Your task to perform on an android device: Show me productivity apps on the Play Store Image 0: 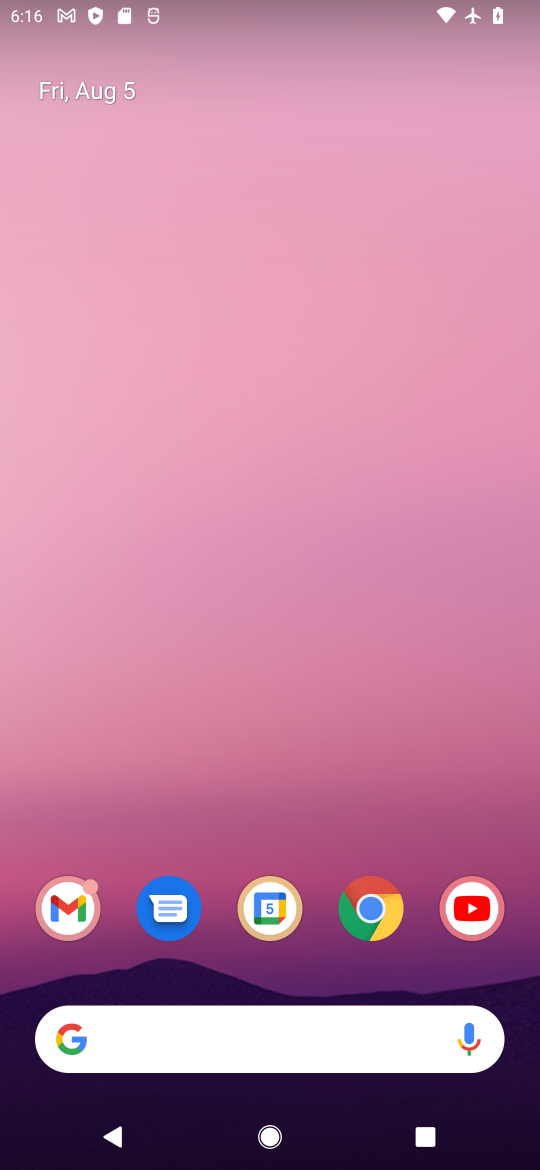
Step 0: drag from (232, 959) to (232, 271)
Your task to perform on an android device: Show me productivity apps on the Play Store Image 1: 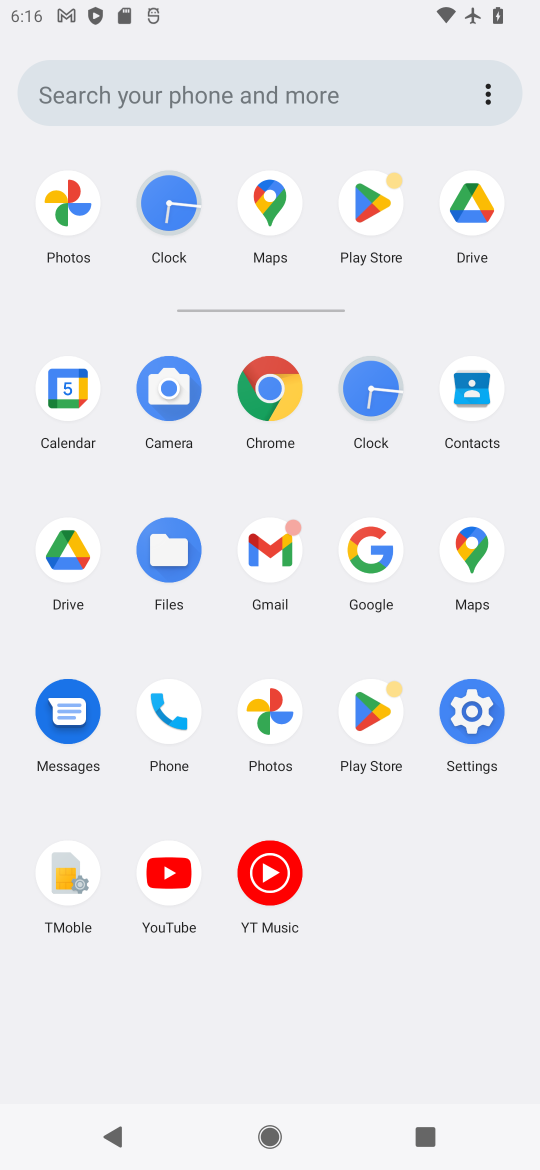
Step 1: drag from (242, 965) to (279, 360)
Your task to perform on an android device: Show me productivity apps on the Play Store Image 2: 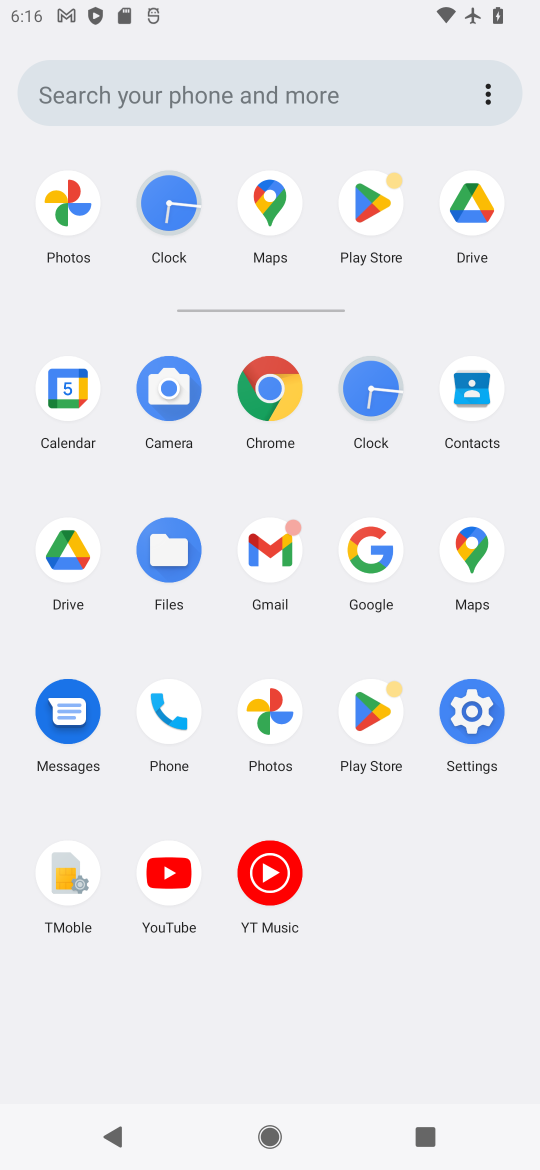
Step 2: click (383, 210)
Your task to perform on an android device: Show me productivity apps on the Play Store Image 3: 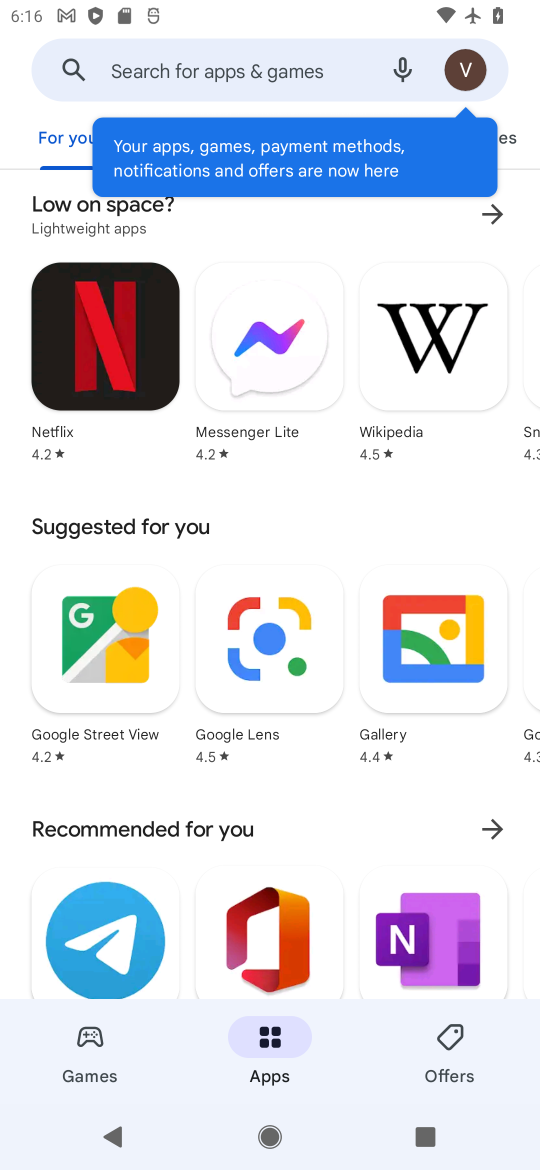
Step 3: click (289, 1042)
Your task to perform on an android device: Show me productivity apps on the Play Store Image 4: 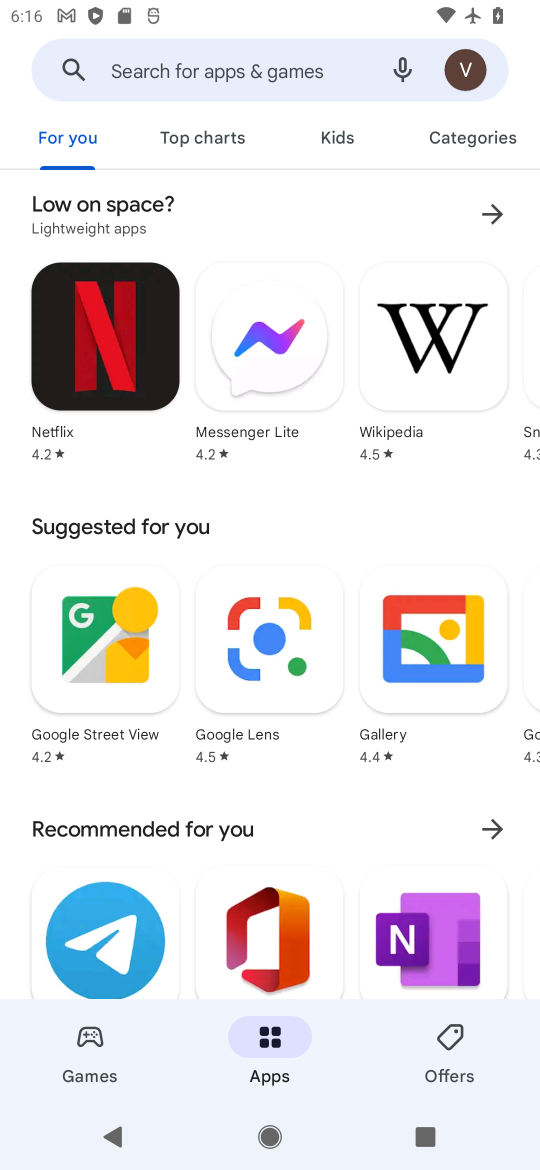
Step 4: click (468, 138)
Your task to perform on an android device: Show me productivity apps on the Play Store Image 5: 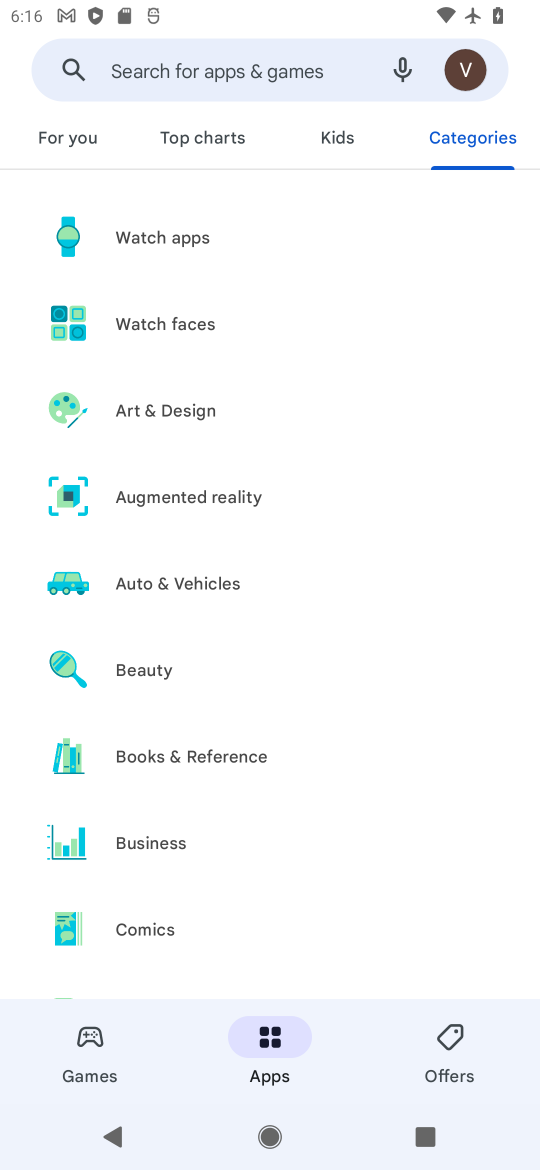
Step 5: drag from (165, 833) to (211, 341)
Your task to perform on an android device: Show me productivity apps on the Play Store Image 6: 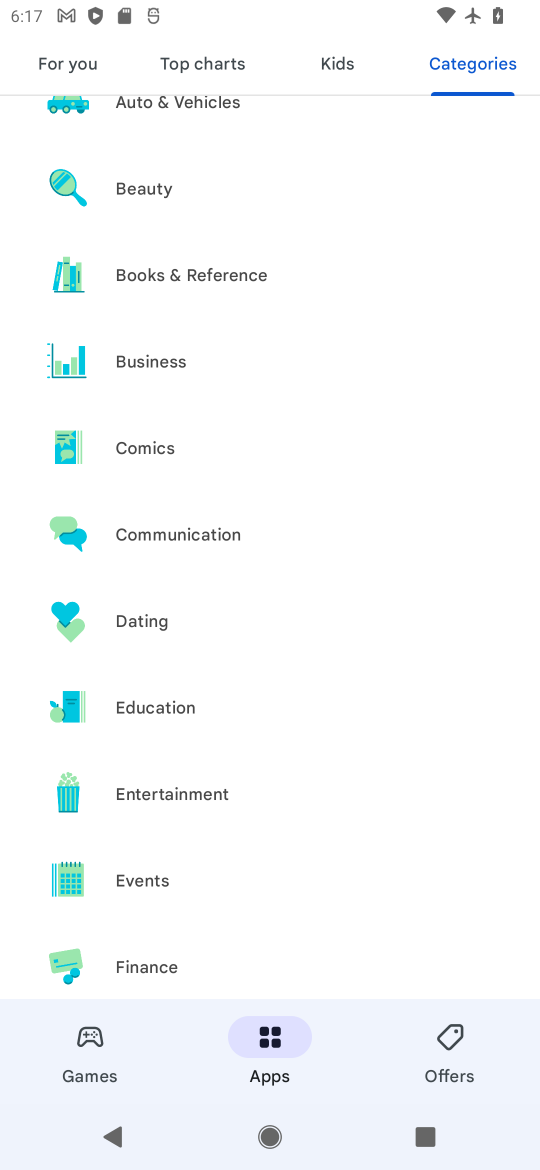
Step 6: drag from (198, 755) to (185, 268)
Your task to perform on an android device: Show me productivity apps on the Play Store Image 7: 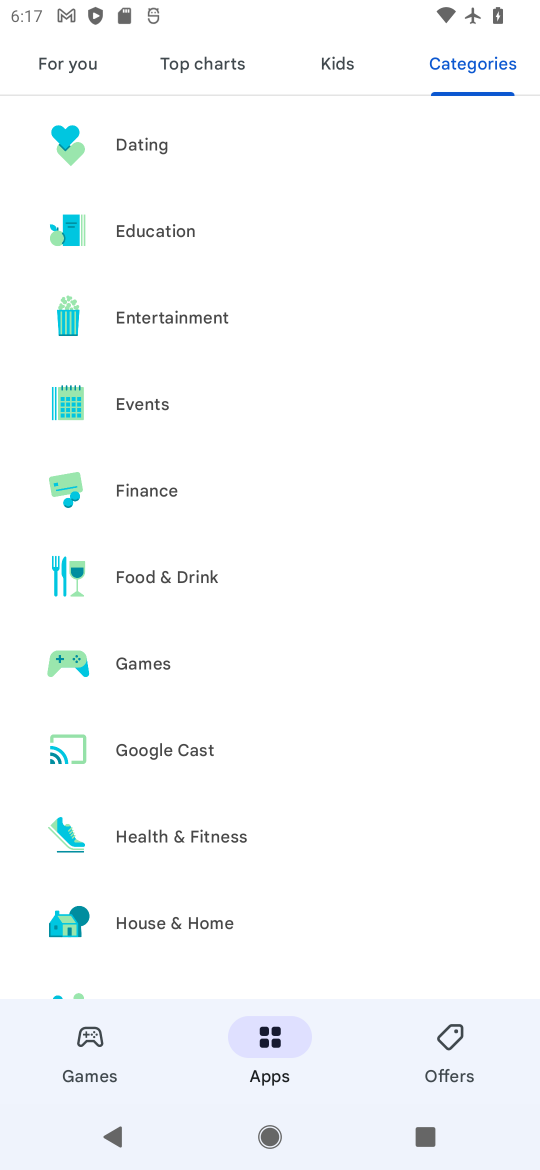
Step 7: drag from (207, 805) to (210, 421)
Your task to perform on an android device: Show me productivity apps on the Play Store Image 8: 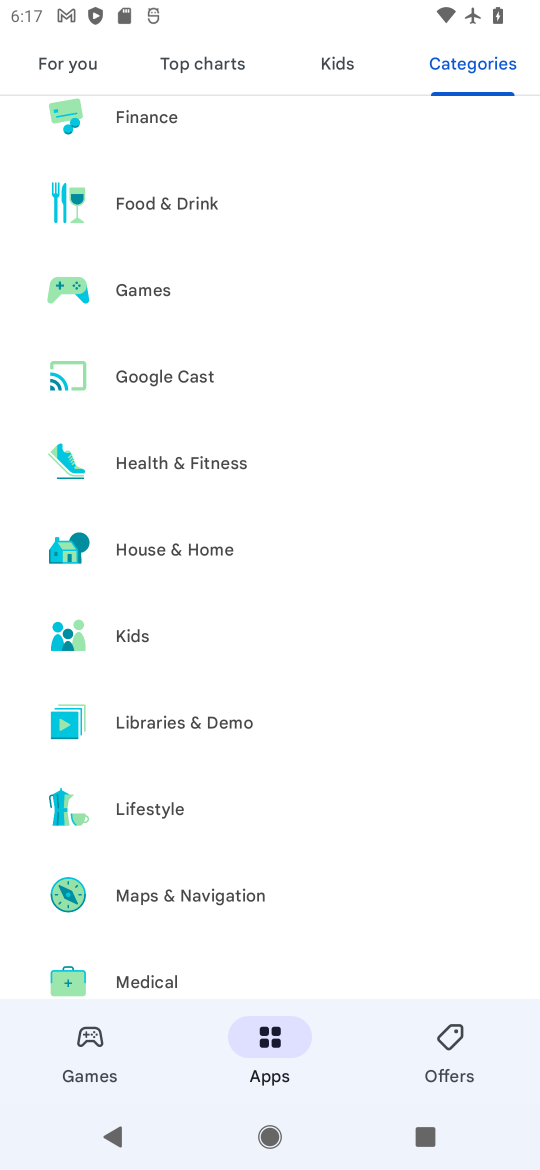
Step 8: drag from (222, 775) to (230, 510)
Your task to perform on an android device: Show me productivity apps on the Play Store Image 9: 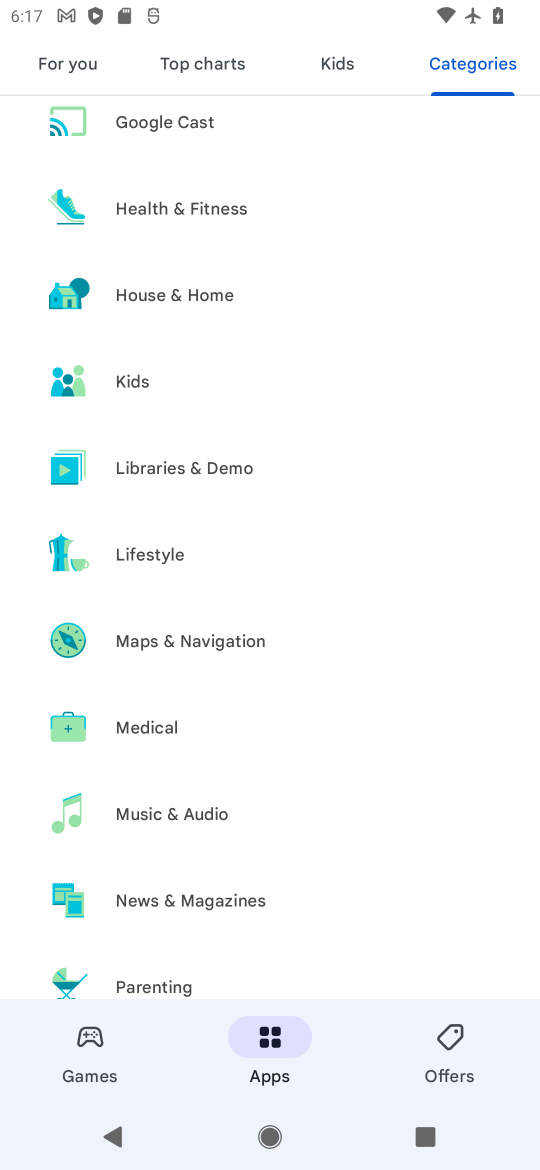
Step 9: drag from (193, 814) to (225, 416)
Your task to perform on an android device: Show me productivity apps on the Play Store Image 10: 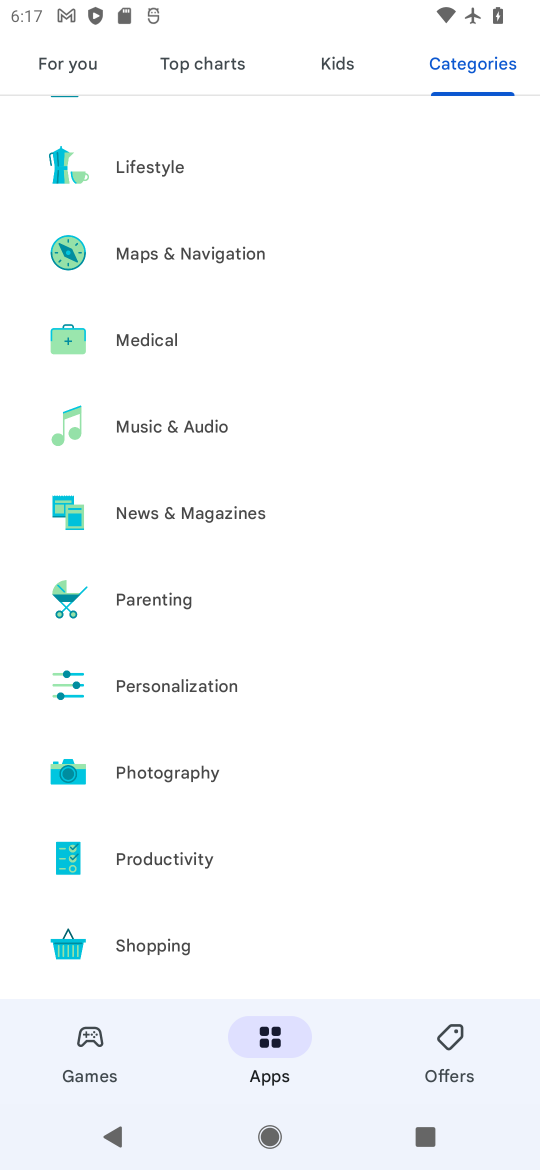
Step 10: click (177, 864)
Your task to perform on an android device: Show me productivity apps on the Play Store Image 11: 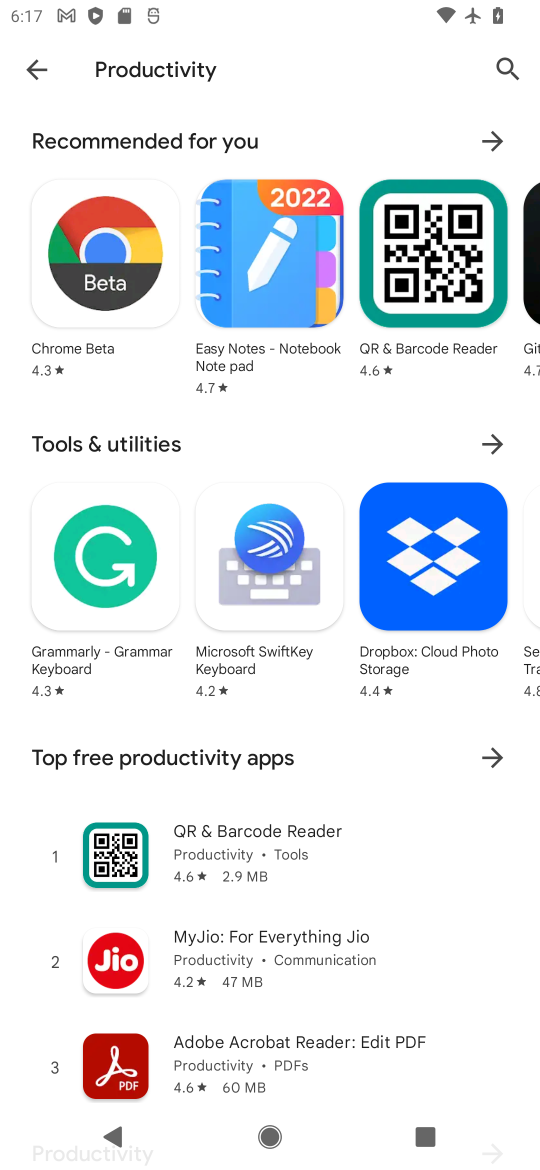
Step 11: task complete